Your task to perform on an android device: Go to Amazon Image 0: 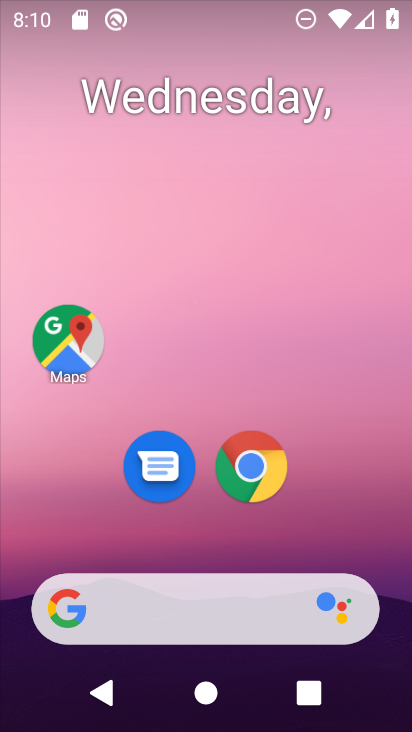
Step 0: click (254, 487)
Your task to perform on an android device: Go to Amazon Image 1: 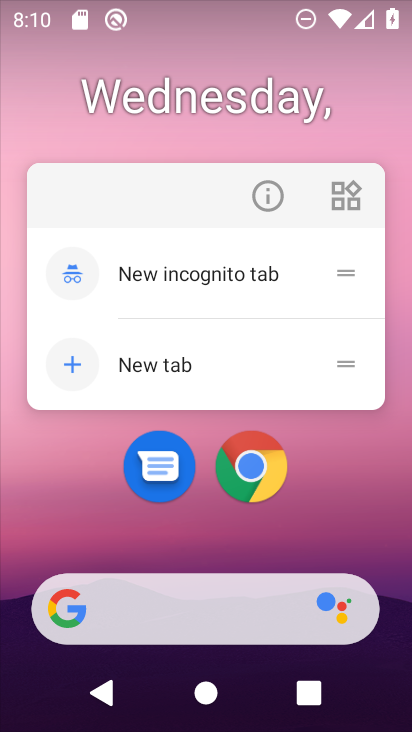
Step 1: click (259, 481)
Your task to perform on an android device: Go to Amazon Image 2: 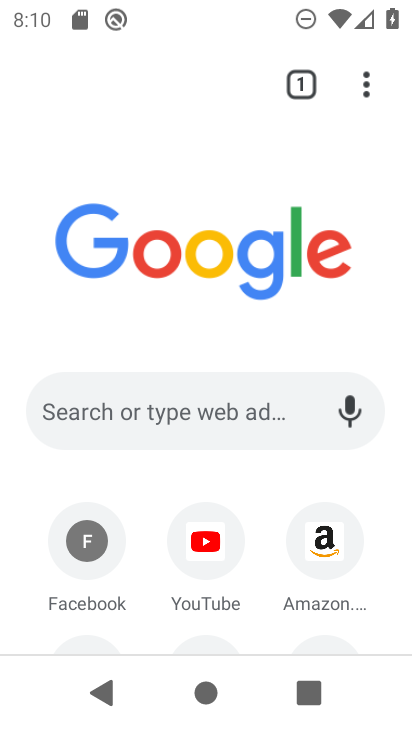
Step 2: click (352, 553)
Your task to perform on an android device: Go to Amazon Image 3: 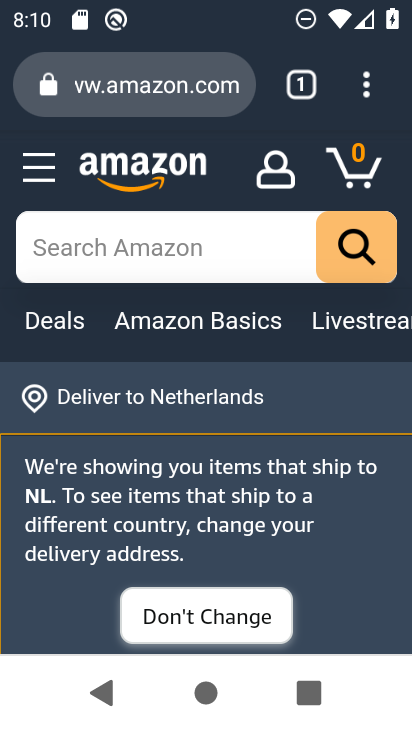
Step 3: task complete